Your task to perform on an android device: Go to notification settings Image 0: 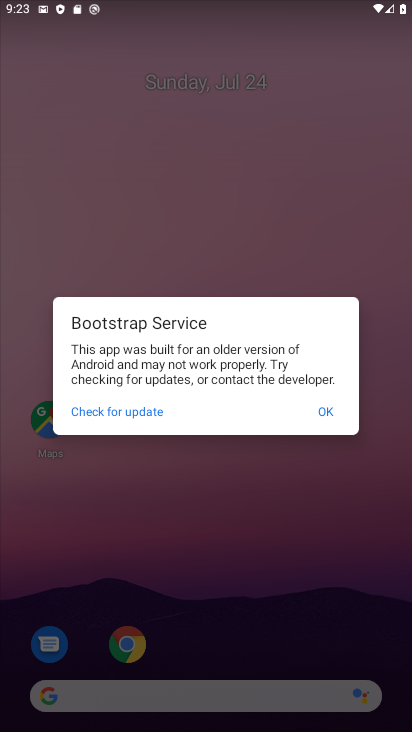
Step 0: press home button
Your task to perform on an android device: Go to notification settings Image 1: 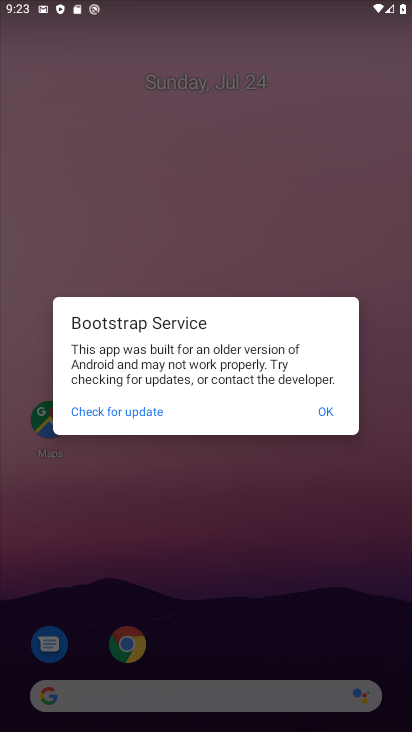
Step 1: drag from (294, 650) to (96, 83)
Your task to perform on an android device: Go to notification settings Image 2: 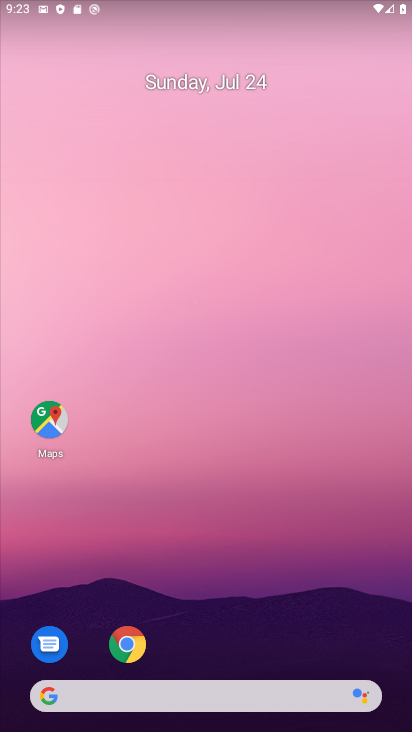
Step 2: drag from (319, 480) to (314, 50)
Your task to perform on an android device: Go to notification settings Image 3: 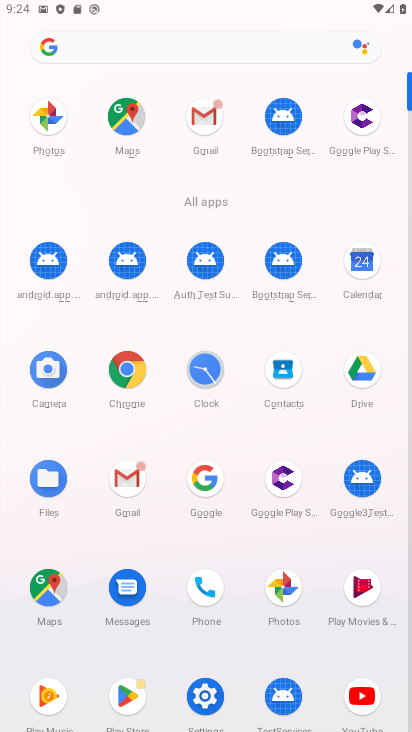
Step 3: click (202, 690)
Your task to perform on an android device: Go to notification settings Image 4: 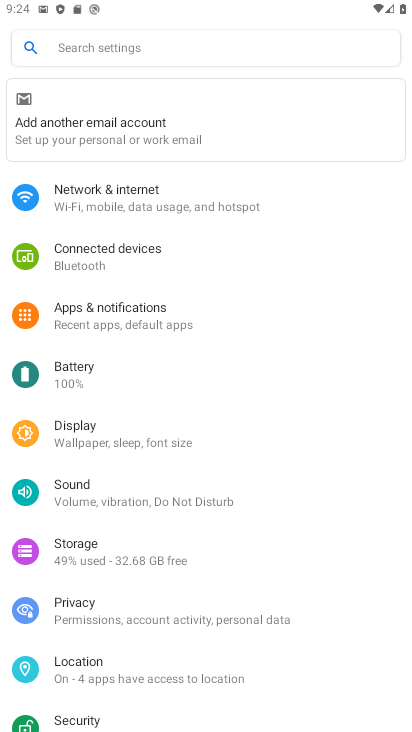
Step 4: click (172, 320)
Your task to perform on an android device: Go to notification settings Image 5: 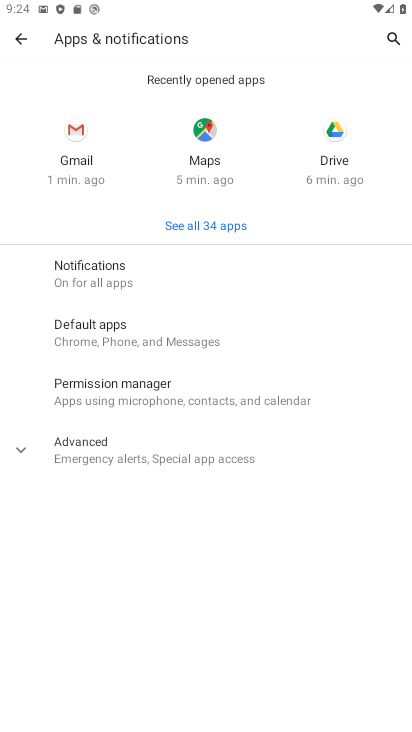
Step 5: click (94, 303)
Your task to perform on an android device: Go to notification settings Image 6: 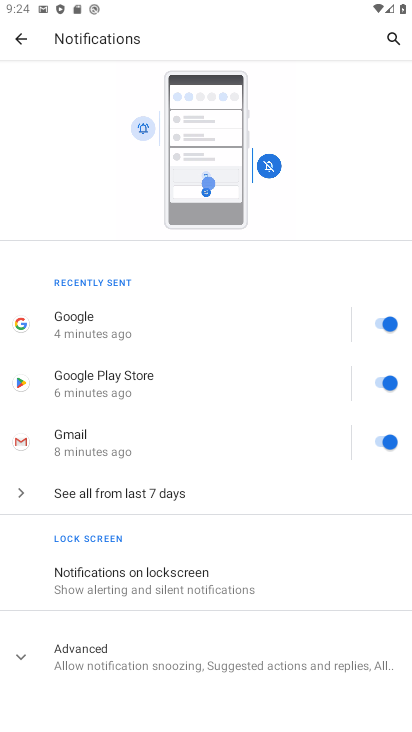
Step 6: task complete